Your task to perform on an android device: see creations saved in the google photos Image 0: 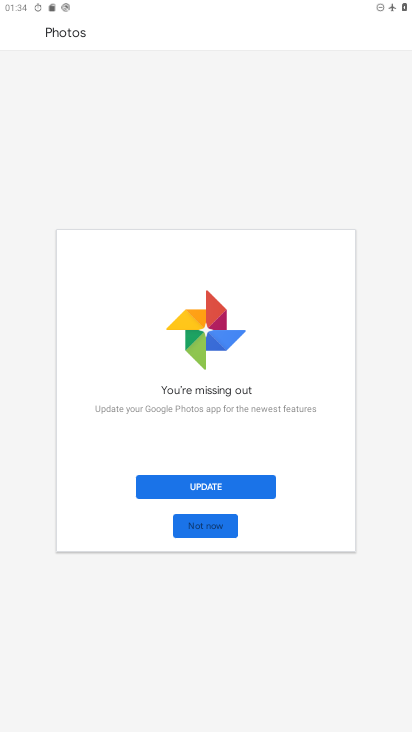
Step 0: click (194, 520)
Your task to perform on an android device: see creations saved in the google photos Image 1: 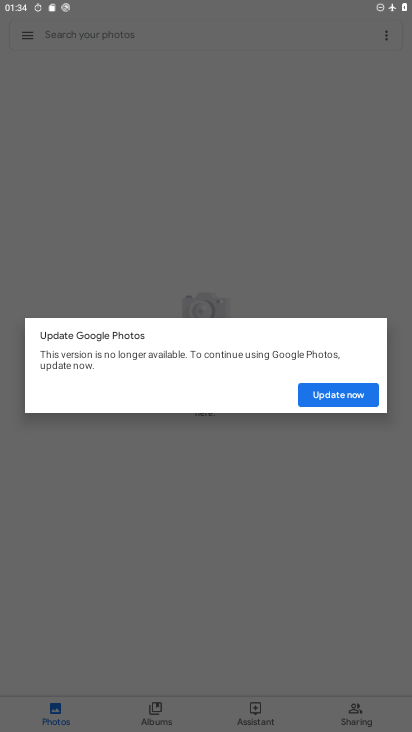
Step 1: click (306, 397)
Your task to perform on an android device: see creations saved in the google photos Image 2: 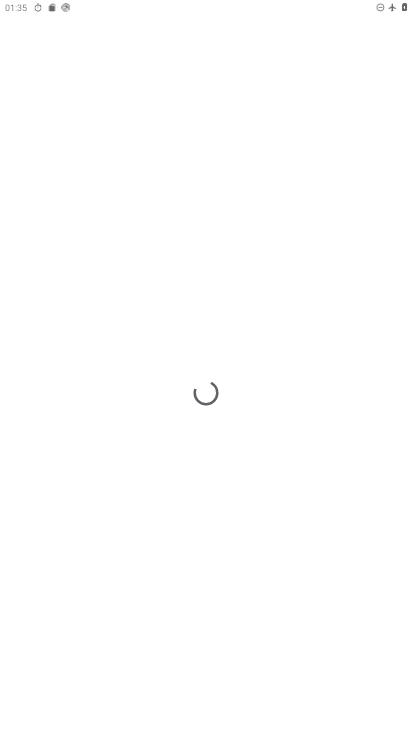
Step 2: task complete